Your task to perform on an android device: see creations saved in the google photos Image 0: 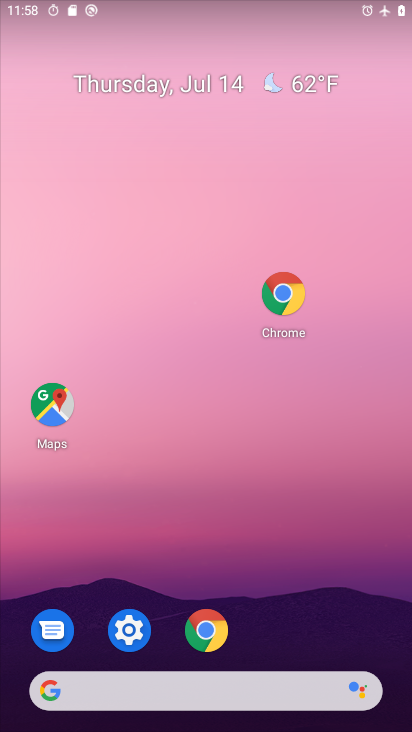
Step 0: click (225, 148)
Your task to perform on an android device: see creations saved in the google photos Image 1: 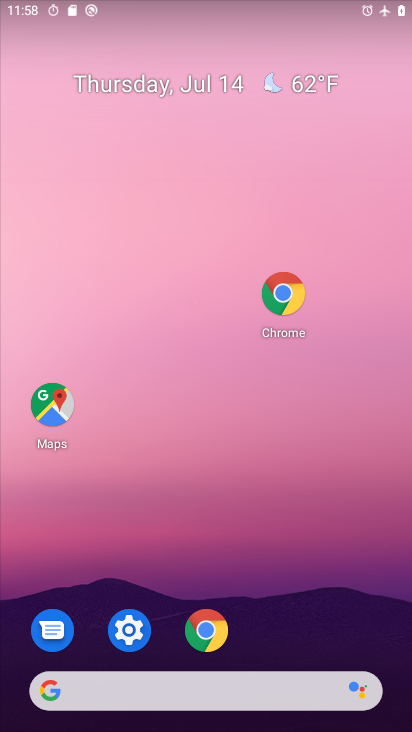
Step 1: drag from (212, 557) to (189, 28)
Your task to perform on an android device: see creations saved in the google photos Image 2: 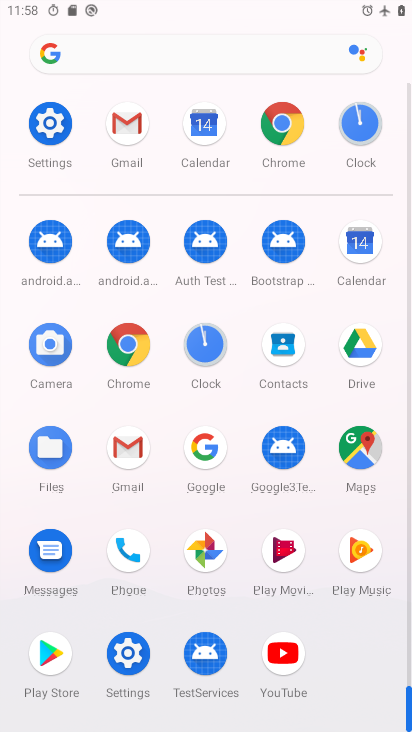
Step 2: click (198, 553)
Your task to perform on an android device: see creations saved in the google photos Image 3: 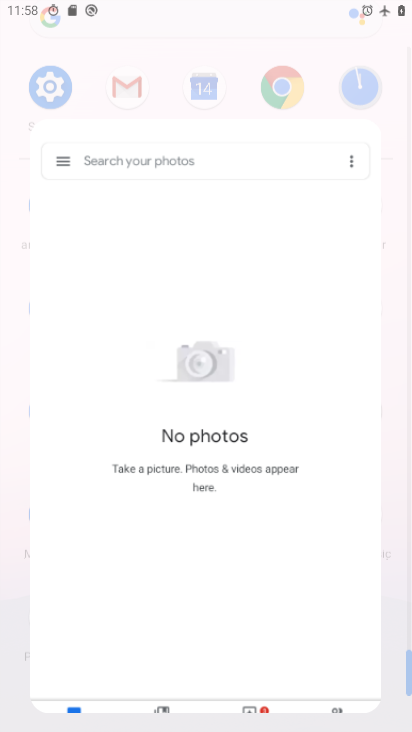
Step 3: click (198, 554)
Your task to perform on an android device: see creations saved in the google photos Image 4: 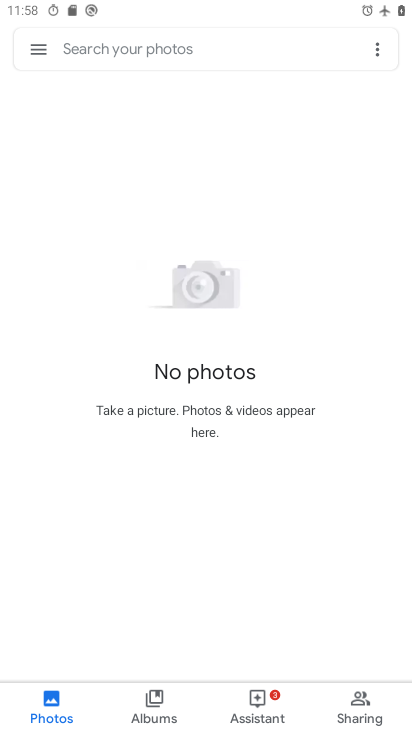
Step 4: task complete